Your task to perform on an android device: turn pop-ups on in chrome Image 0: 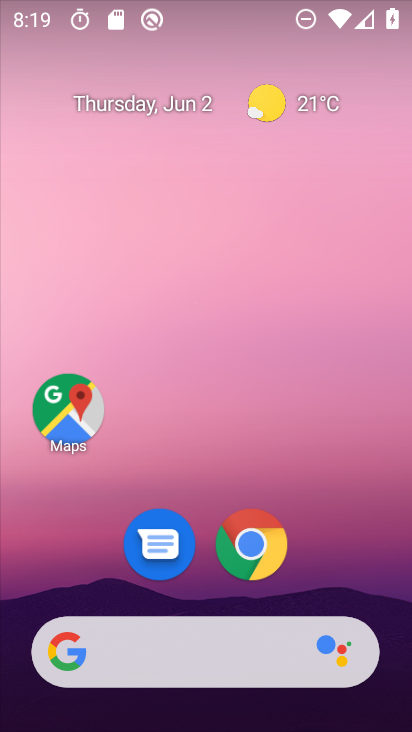
Step 0: drag from (347, 606) to (352, 129)
Your task to perform on an android device: turn pop-ups on in chrome Image 1: 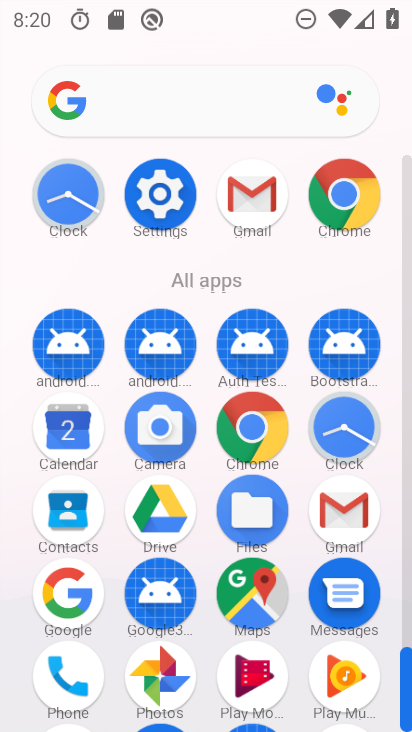
Step 1: click (365, 201)
Your task to perform on an android device: turn pop-ups on in chrome Image 2: 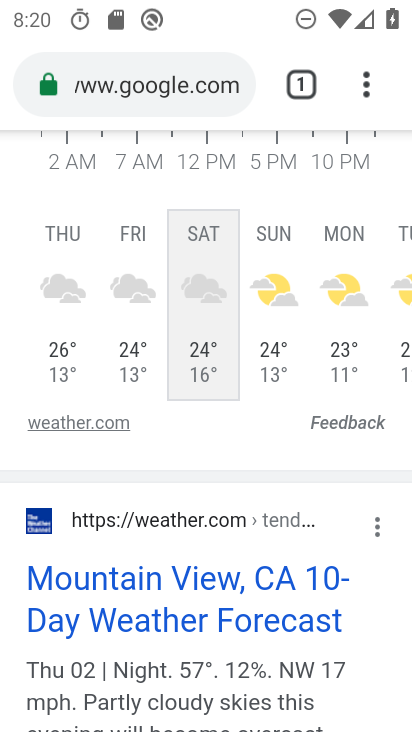
Step 2: click (366, 92)
Your task to perform on an android device: turn pop-ups on in chrome Image 3: 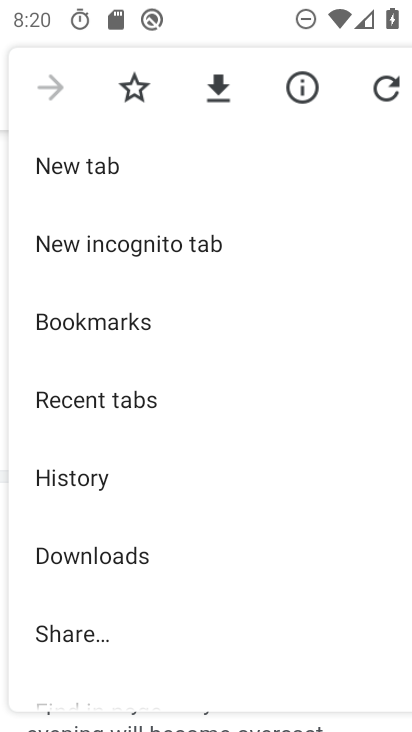
Step 3: drag from (191, 611) to (186, 191)
Your task to perform on an android device: turn pop-ups on in chrome Image 4: 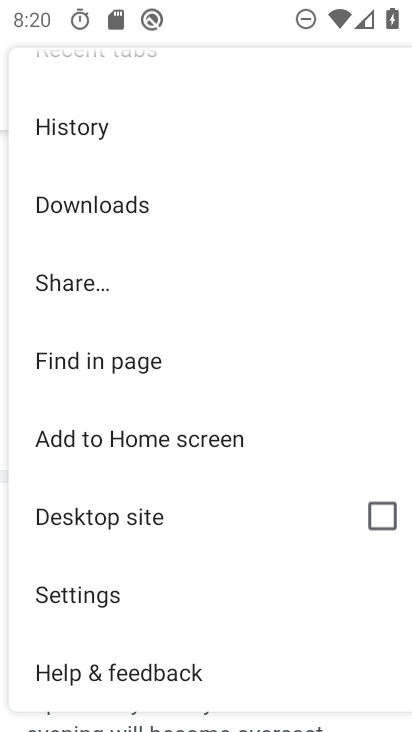
Step 4: click (143, 591)
Your task to perform on an android device: turn pop-ups on in chrome Image 5: 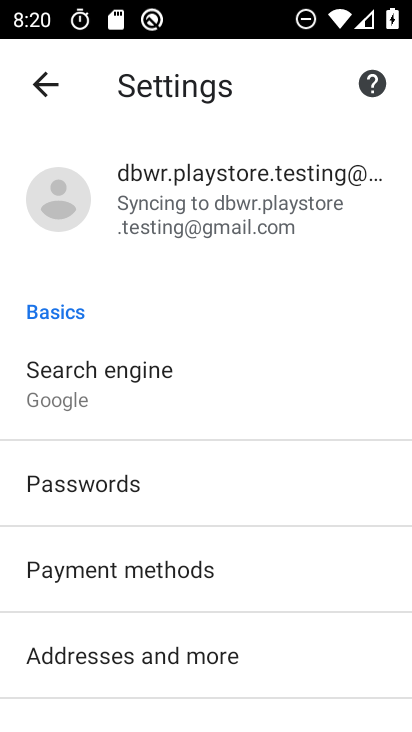
Step 5: drag from (170, 664) to (164, 168)
Your task to perform on an android device: turn pop-ups on in chrome Image 6: 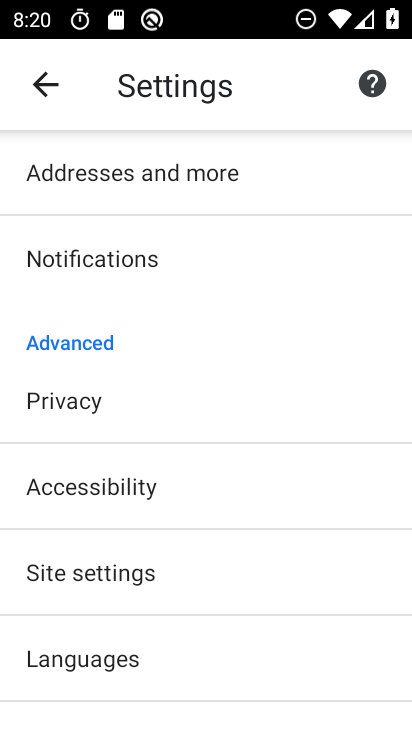
Step 6: click (189, 566)
Your task to perform on an android device: turn pop-ups on in chrome Image 7: 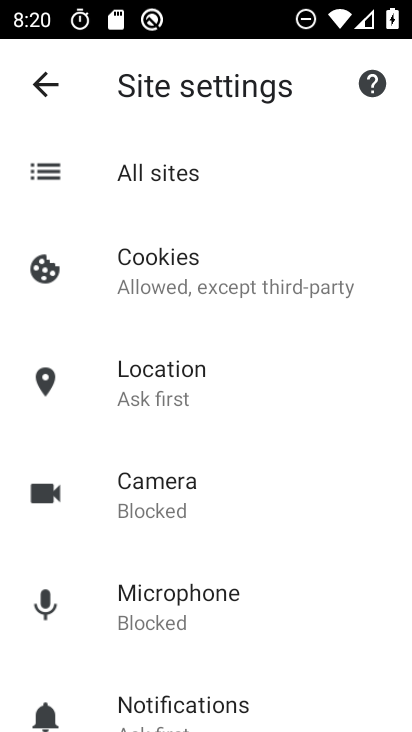
Step 7: drag from (215, 667) to (219, 178)
Your task to perform on an android device: turn pop-ups on in chrome Image 8: 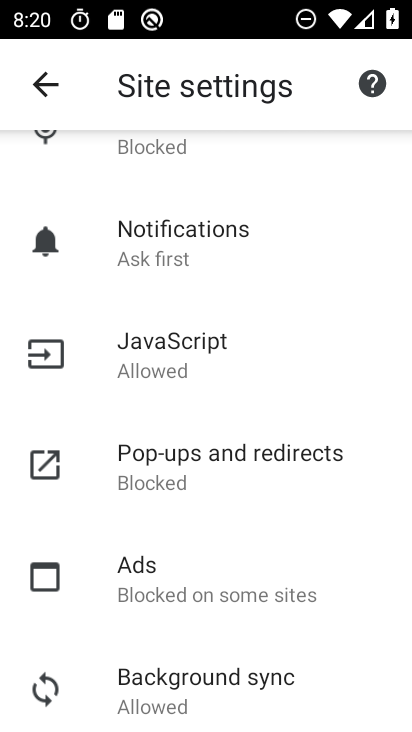
Step 8: click (224, 467)
Your task to perform on an android device: turn pop-ups on in chrome Image 9: 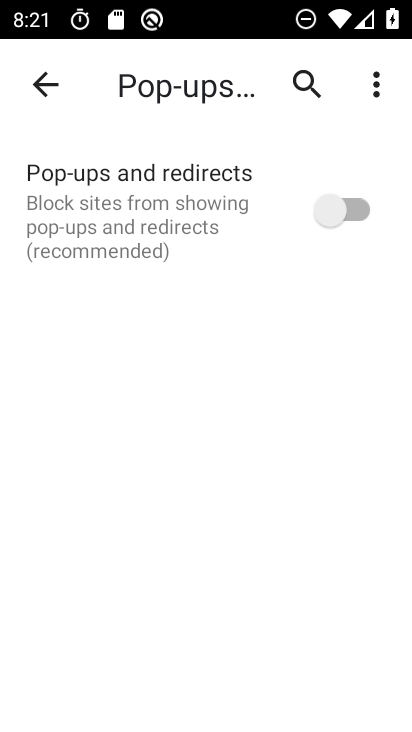
Step 9: click (371, 227)
Your task to perform on an android device: turn pop-ups on in chrome Image 10: 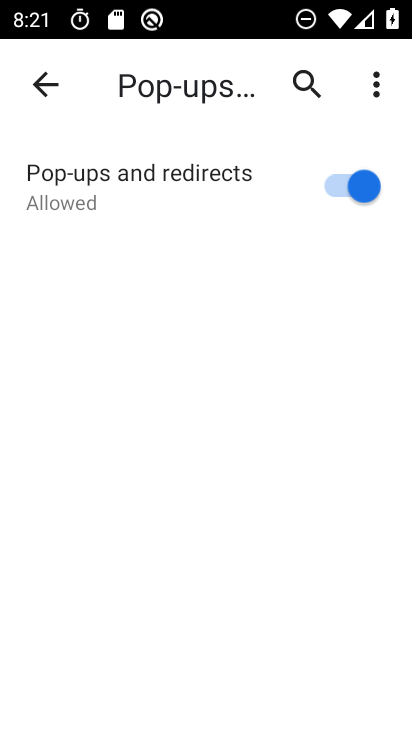
Step 10: task complete